Your task to perform on an android device: Do I have any events this weekend? Image 0: 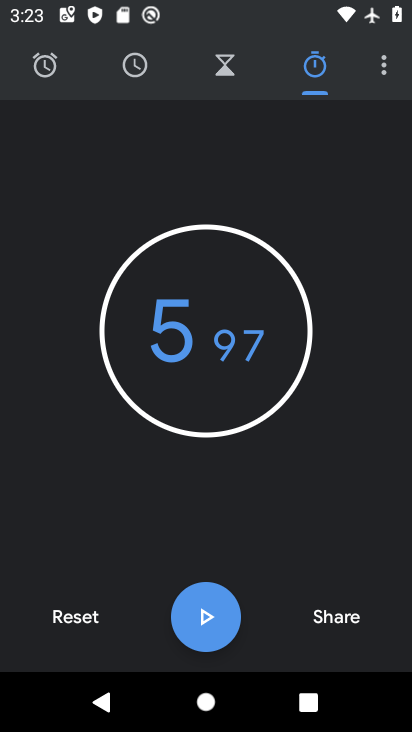
Step 0: press home button
Your task to perform on an android device: Do I have any events this weekend? Image 1: 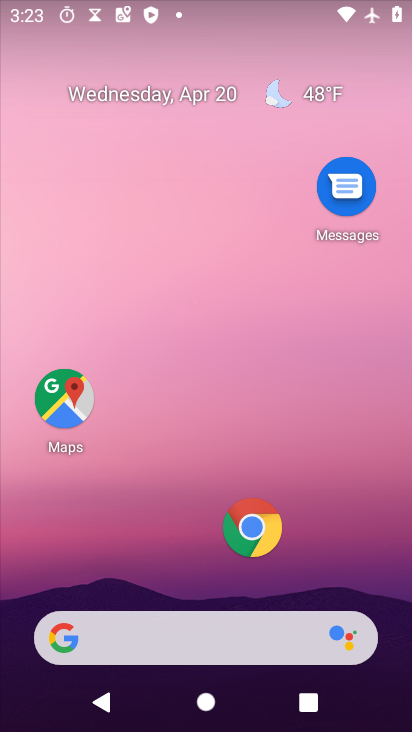
Step 1: drag from (185, 626) to (335, 46)
Your task to perform on an android device: Do I have any events this weekend? Image 2: 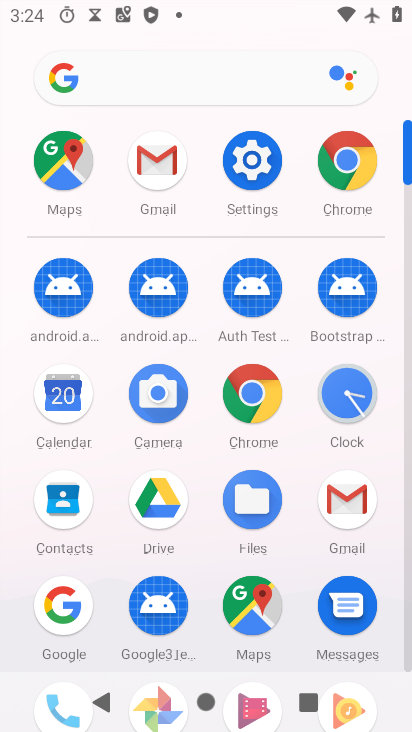
Step 2: click (57, 400)
Your task to perform on an android device: Do I have any events this weekend? Image 3: 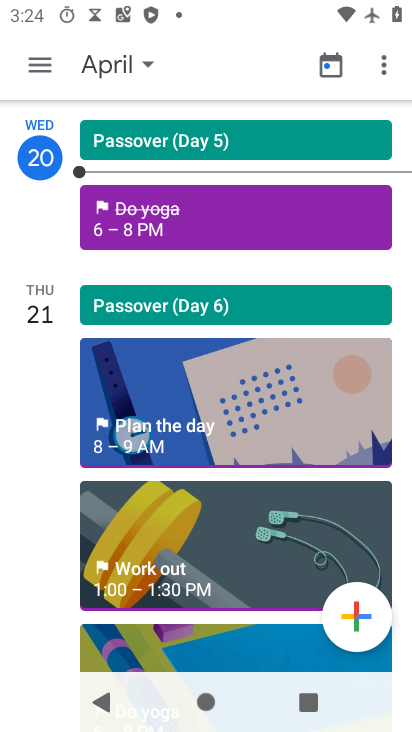
Step 3: click (131, 61)
Your task to perform on an android device: Do I have any events this weekend? Image 4: 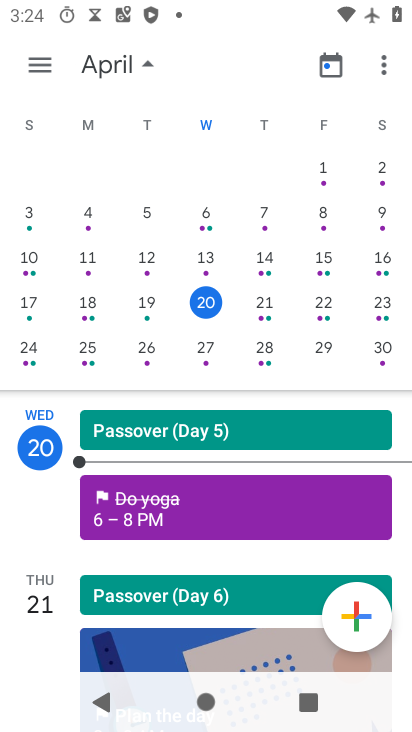
Step 4: click (385, 301)
Your task to perform on an android device: Do I have any events this weekend? Image 5: 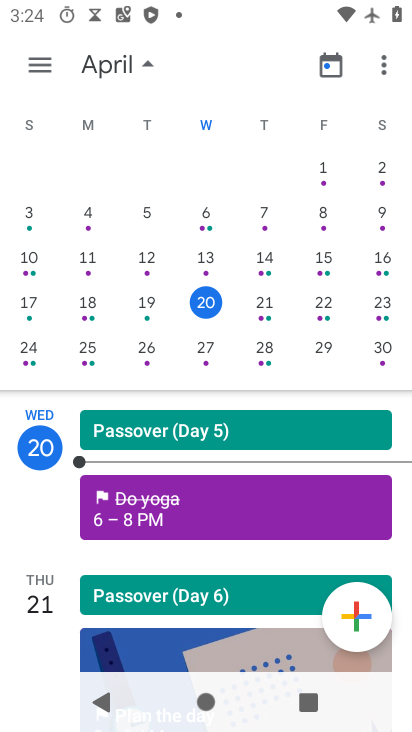
Step 5: click (378, 302)
Your task to perform on an android device: Do I have any events this weekend? Image 6: 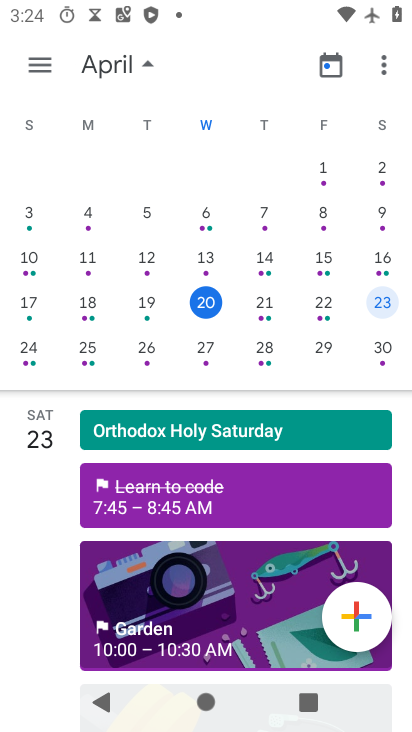
Step 6: click (48, 60)
Your task to perform on an android device: Do I have any events this weekend? Image 7: 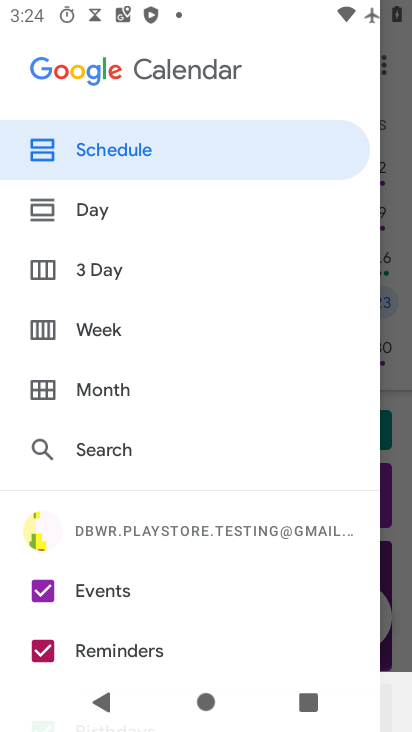
Step 7: click (101, 208)
Your task to perform on an android device: Do I have any events this weekend? Image 8: 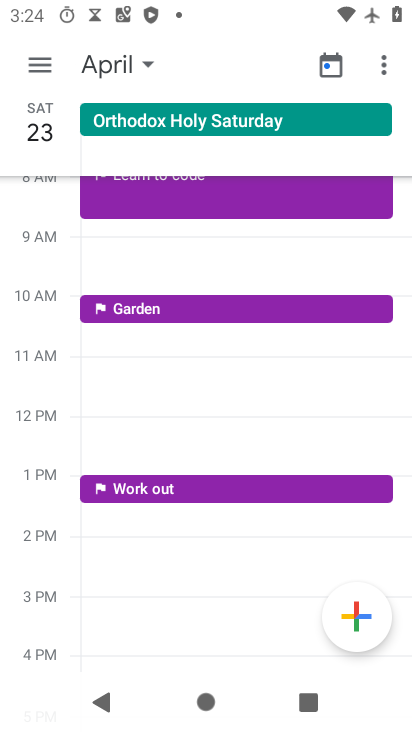
Step 8: click (49, 60)
Your task to perform on an android device: Do I have any events this weekend? Image 9: 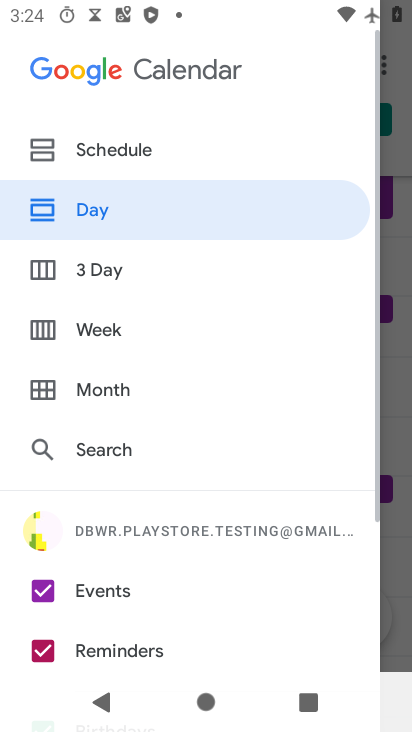
Step 9: click (85, 146)
Your task to perform on an android device: Do I have any events this weekend? Image 10: 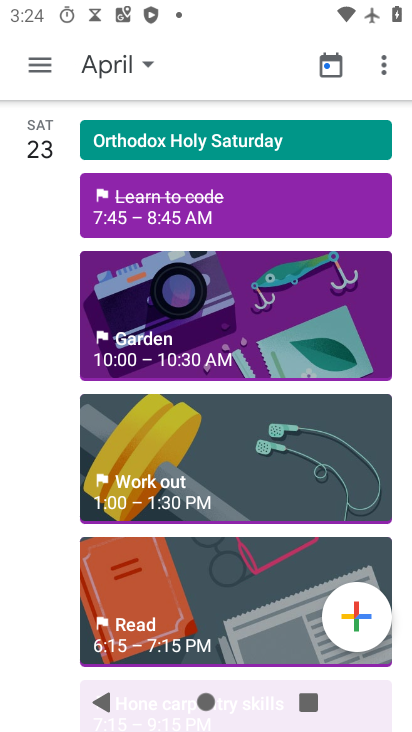
Step 10: click (190, 209)
Your task to perform on an android device: Do I have any events this weekend? Image 11: 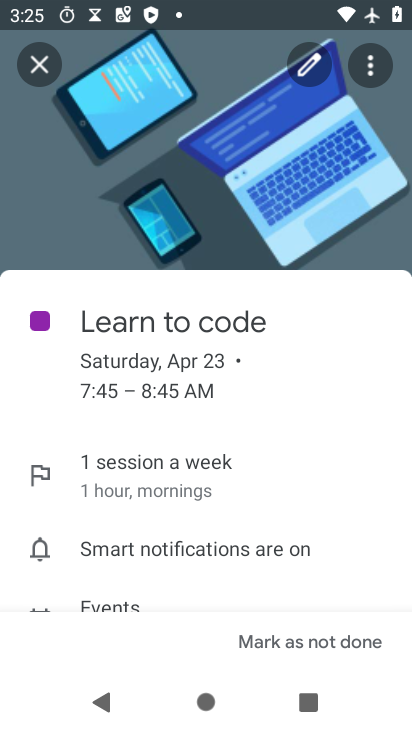
Step 11: task complete